Your task to perform on an android device: delete the emails in spam in the gmail app Image 0: 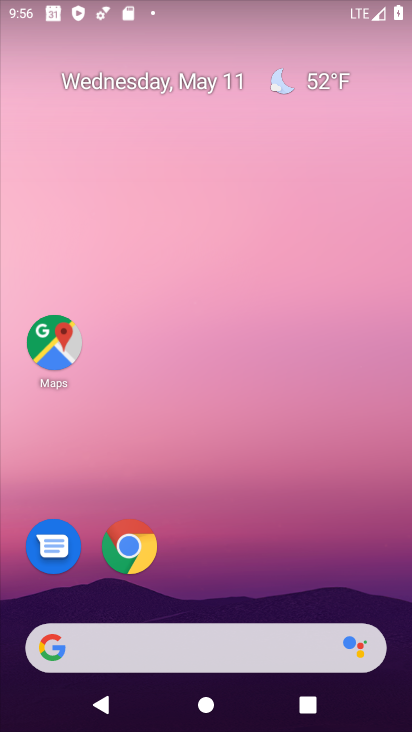
Step 0: click (383, 393)
Your task to perform on an android device: delete the emails in spam in the gmail app Image 1: 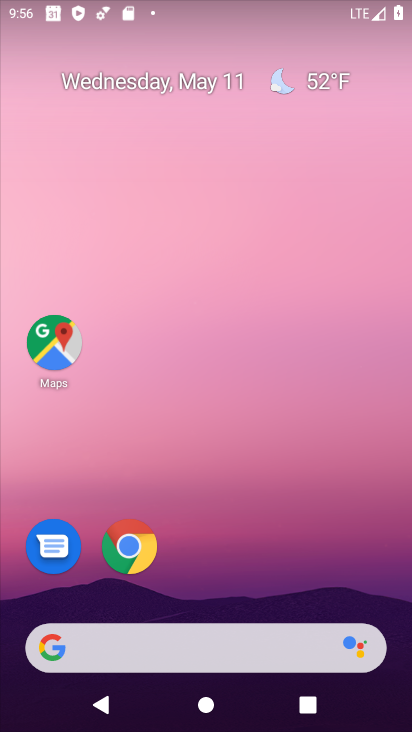
Step 1: drag from (207, 655) to (160, 137)
Your task to perform on an android device: delete the emails in spam in the gmail app Image 2: 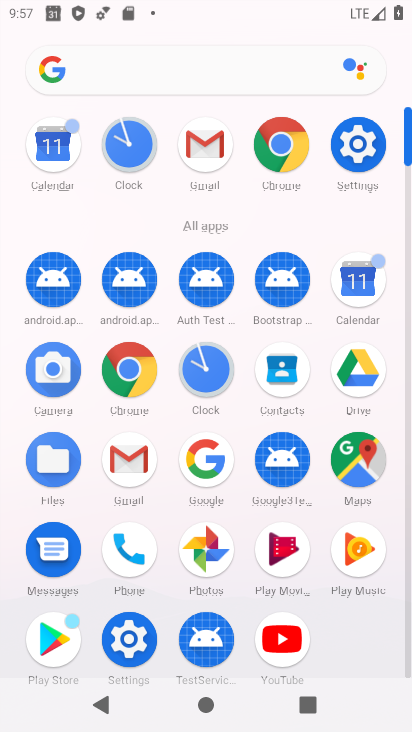
Step 2: click (128, 474)
Your task to perform on an android device: delete the emails in spam in the gmail app Image 3: 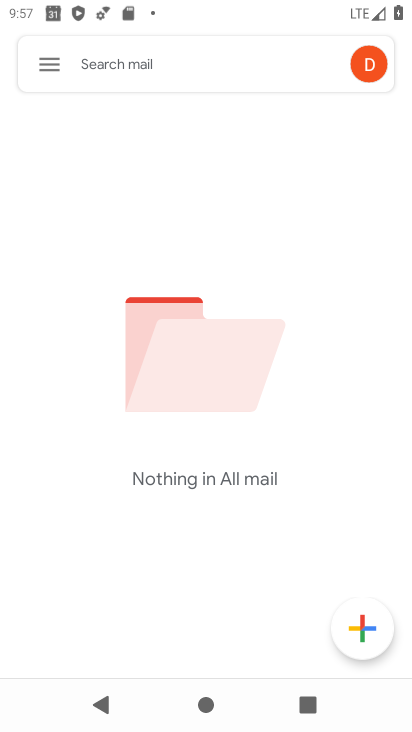
Step 3: click (47, 66)
Your task to perform on an android device: delete the emails in spam in the gmail app Image 4: 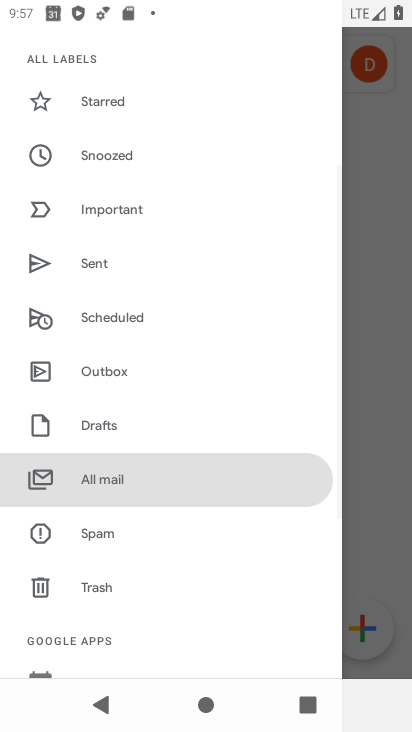
Step 4: click (116, 538)
Your task to perform on an android device: delete the emails in spam in the gmail app Image 5: 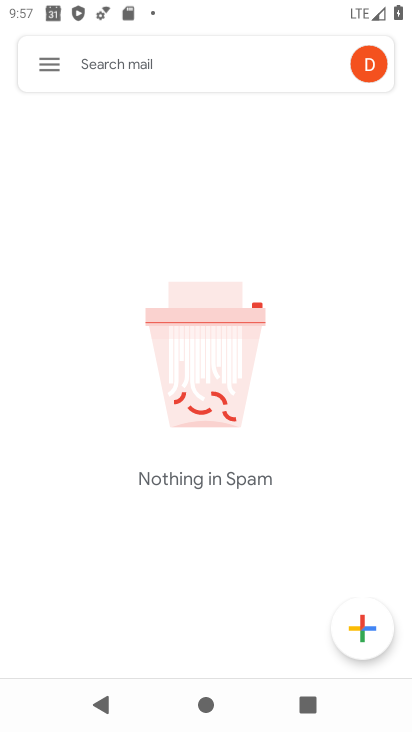
Step 5: task complete